Your task to perform on an android device: Open Chrome and go to the settings page Image 0: 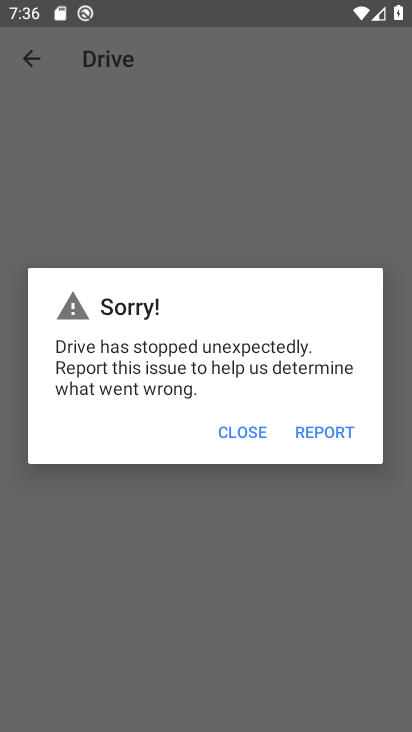
Step 0: press home button
Your task to perform on an android device: Open Chrome and go to the settings page Image 1: 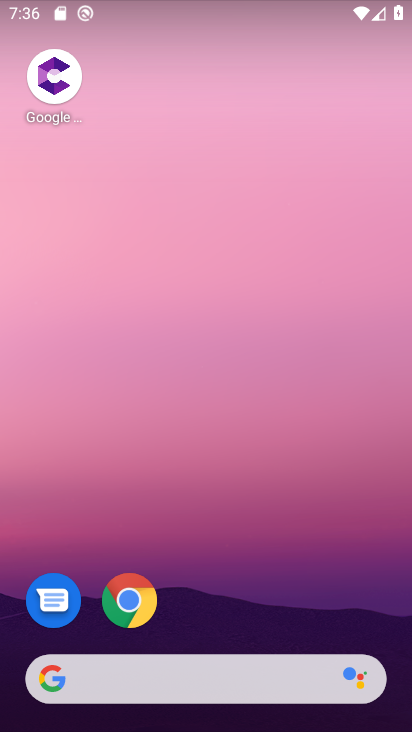
Step 1: click (136, 601)
Your task to perform on an android device: Open Chrome and go to the settings page Image 2: 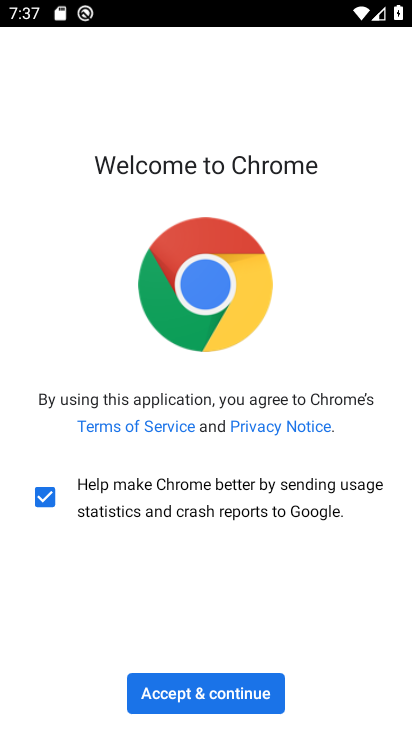
Step 2: click (176, 691)
Your task to perform on an android device: Open Chrome and go to the settings page Image 3: 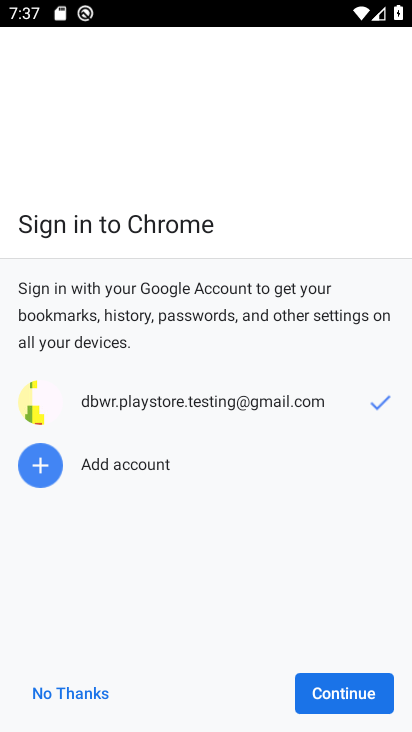
Step 3: click (360, 688)
Your task to perform on an android device: Open Chrome and go to the settings page Image 4: 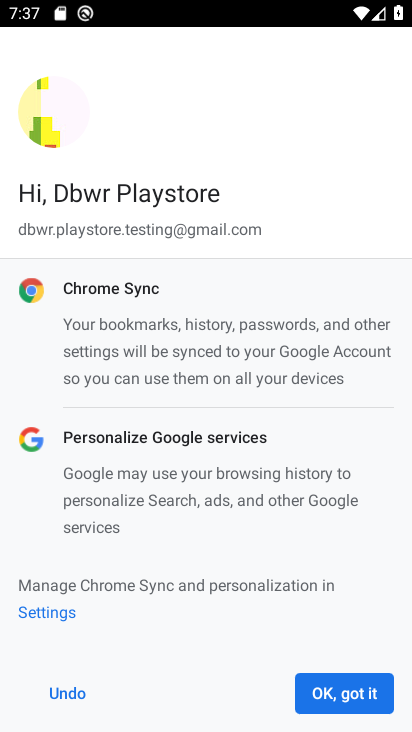
Step 4: click (360, 688)
Your task to perform on an android device: Open Chrome and go to the settings page Image 5: 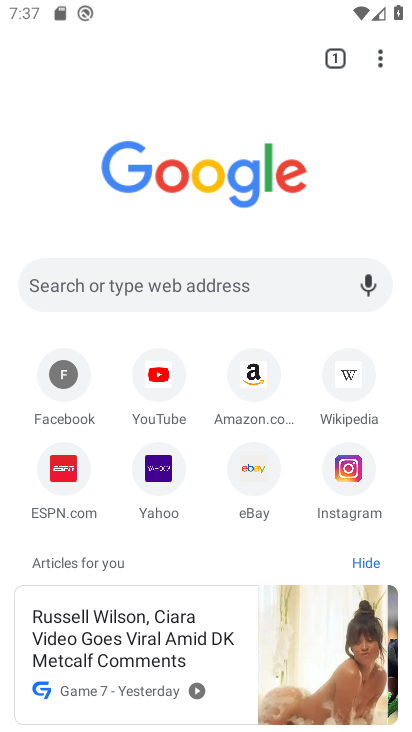
Step 5: click (380, 53)
Your task to perform on an android device: Open Chrome and go to the settings page Image 6: 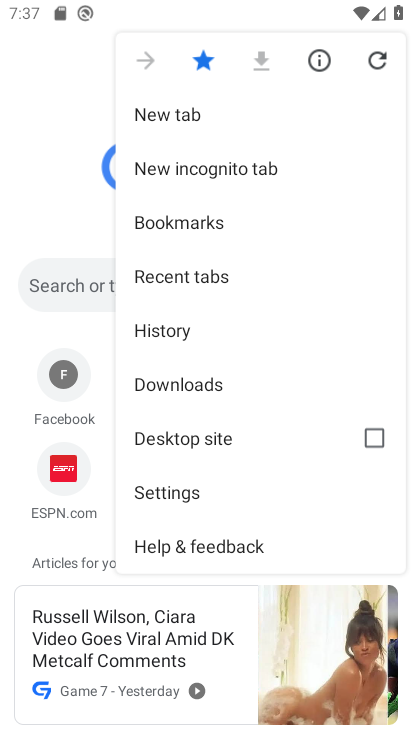
Step 6: click (177, 498)
Your task to perform on an android device: Open Chrome and go to the settings page Image 7: 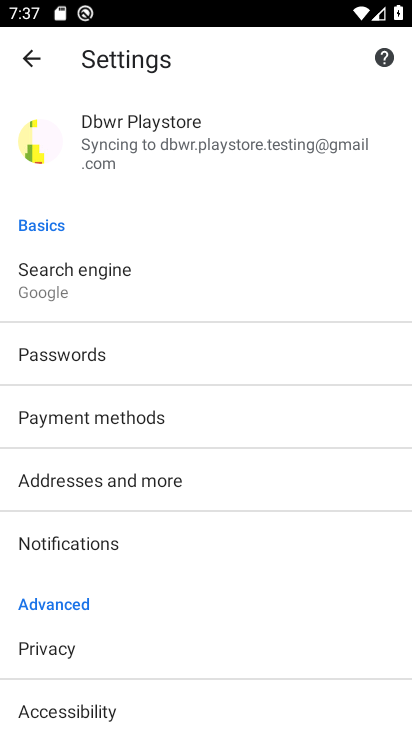
Step 7: task complete